Your task to perform on an android device: manage bookmarks in the chrome app Image 0: 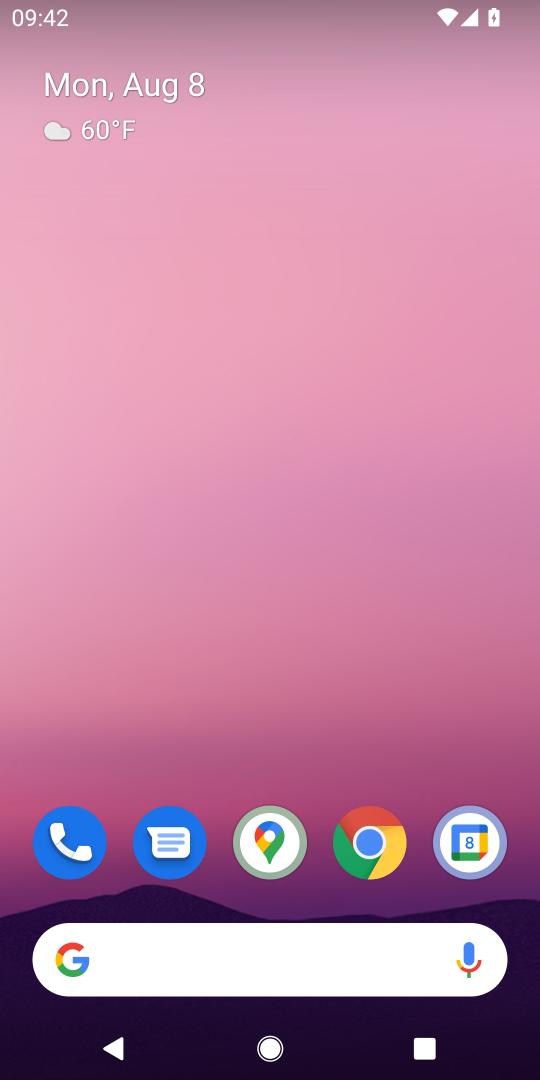
Step 0: click (360, 843)
Your task to perform on an android device: manage bookmarks in the chrome app Image 1: 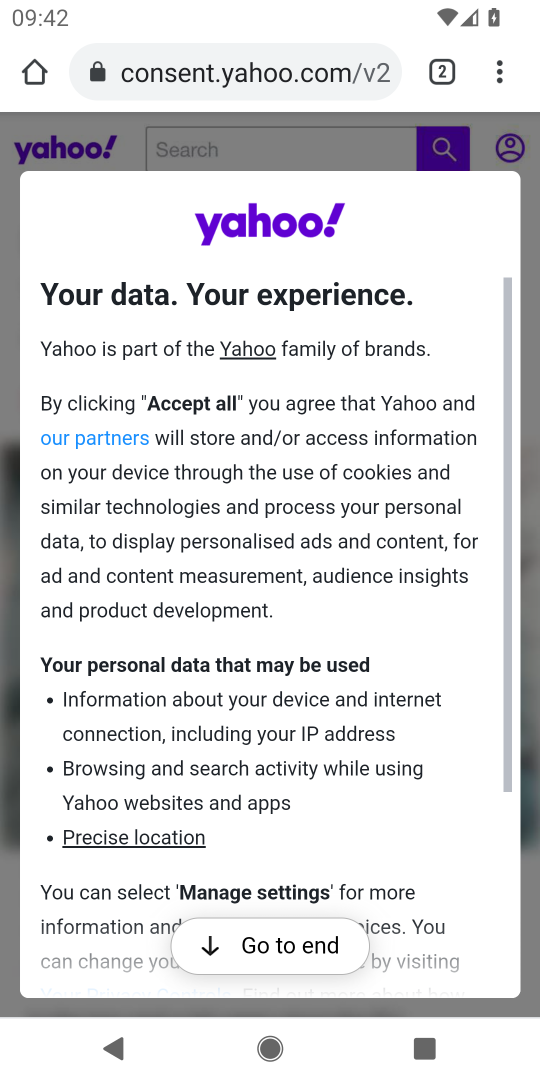
Step 1: click (496, 72)
Your task to perform on an android device: manage bookmarks in the chrome app Image 2: 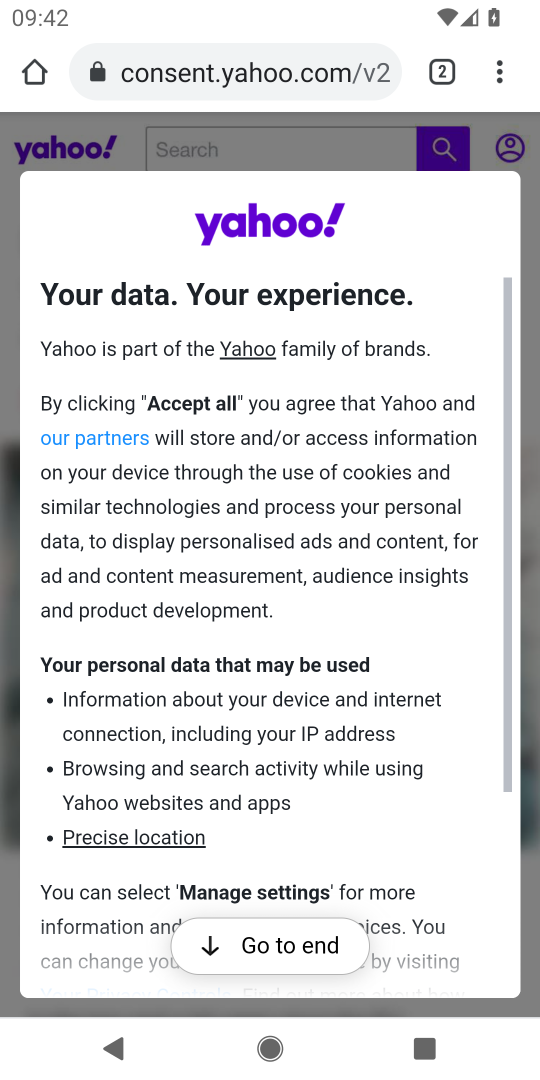
Step 2: click (522, 88)
Your task to perform on an android device: manage bookmarks in the chrome app Image 3: 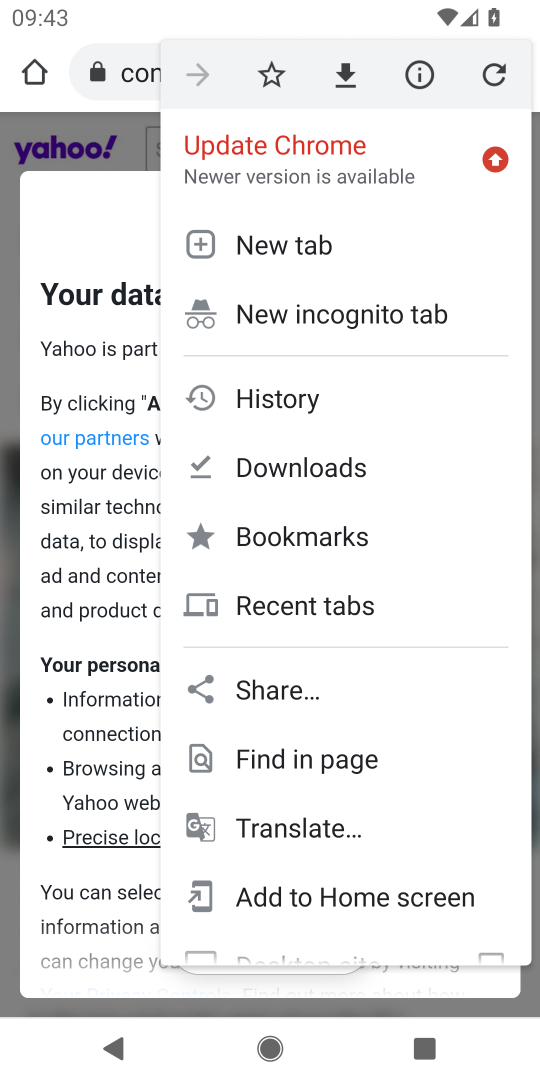
Step 3: click (281, 535)
Your task to perform on an android device: manage bookmarks in the chrome app Image 4: 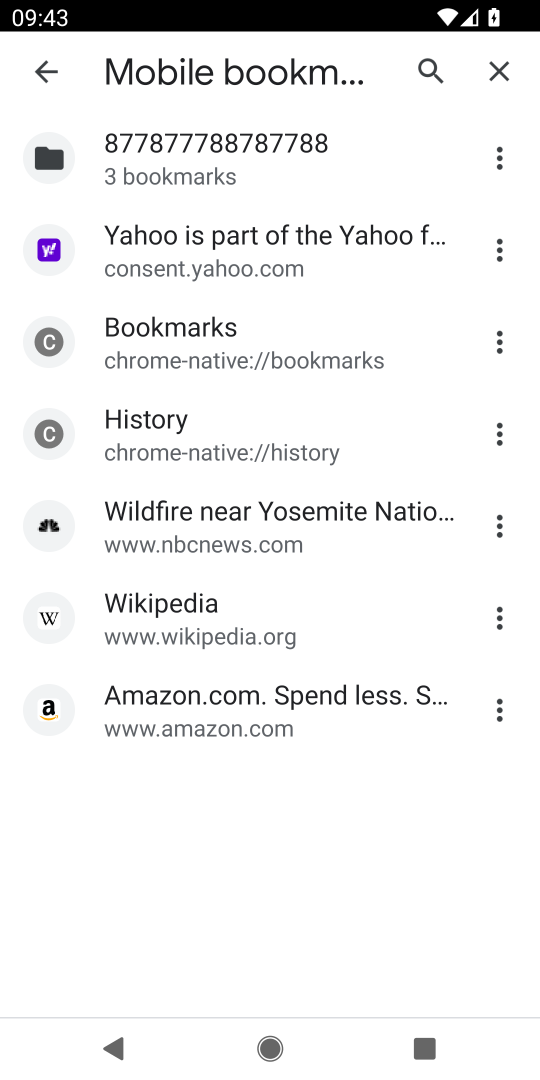
Step 4: click (500, 258)
Your task to perform on an android device: manage bookmarks in the chrome app Image 5: 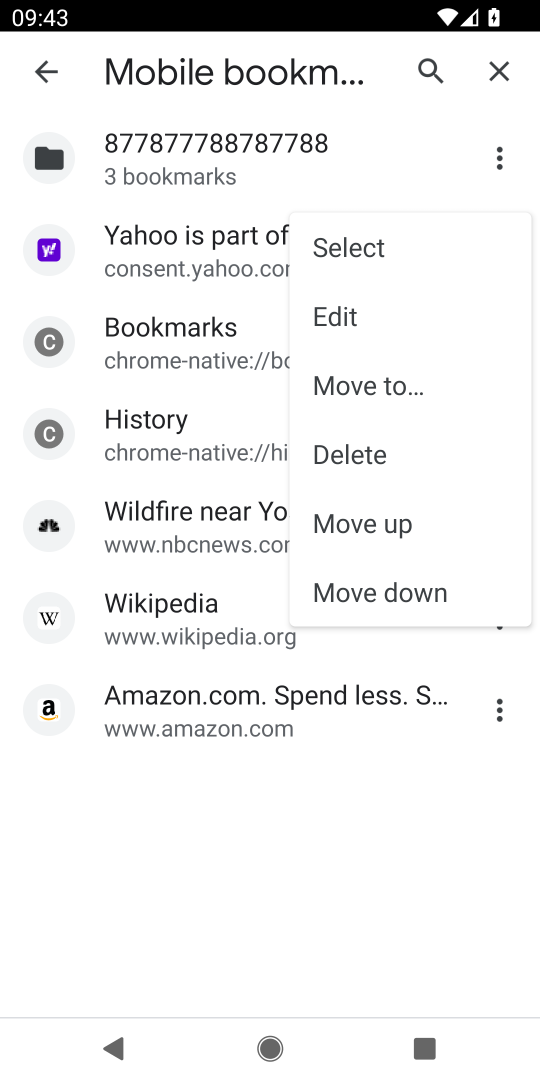
Step 5: click (403, 579)
Your task to perform on an android device: manage bookmarks in the chrome app Image 6: 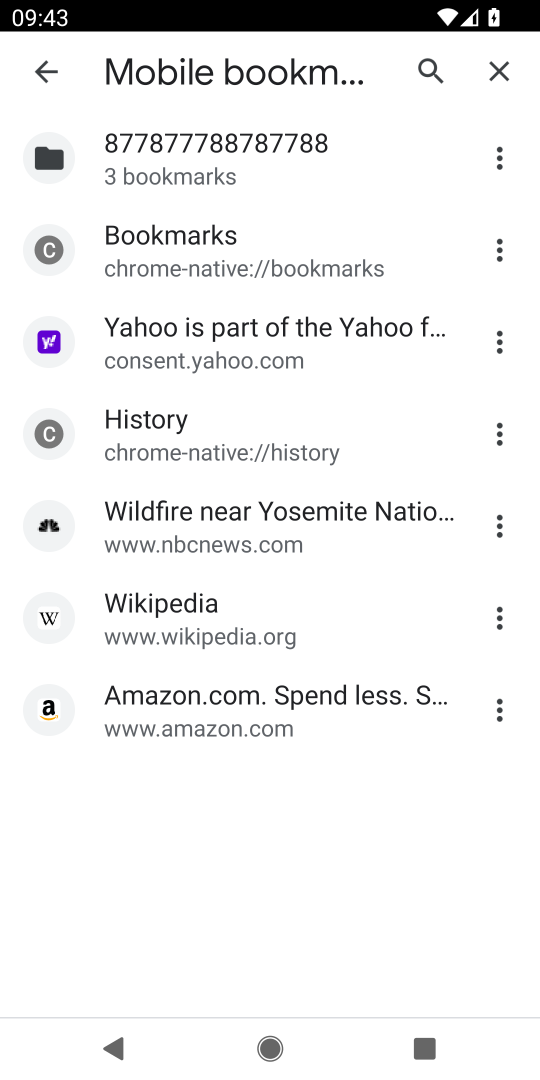
Step 6: task complete